Your task to perform on an android device: Open Yahoo.com Image 0: 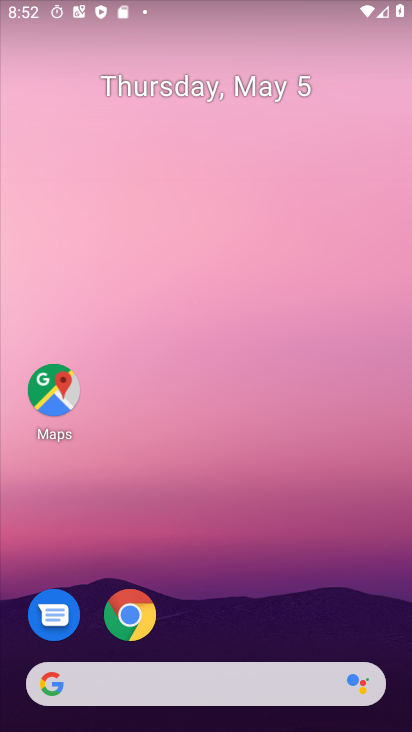
Step 0: click (135, 623)
Your task to perform on an android device: Open Yahoo.com Image 1: 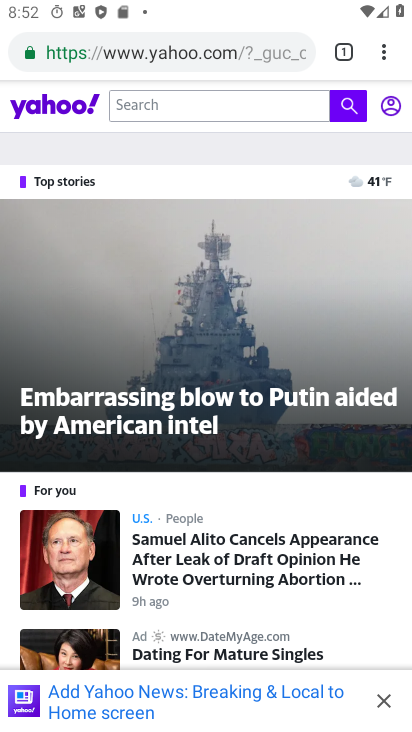
Step 1: click (225, 59)
Your task to perform on an android device: Open Yahoo.com Image 2: 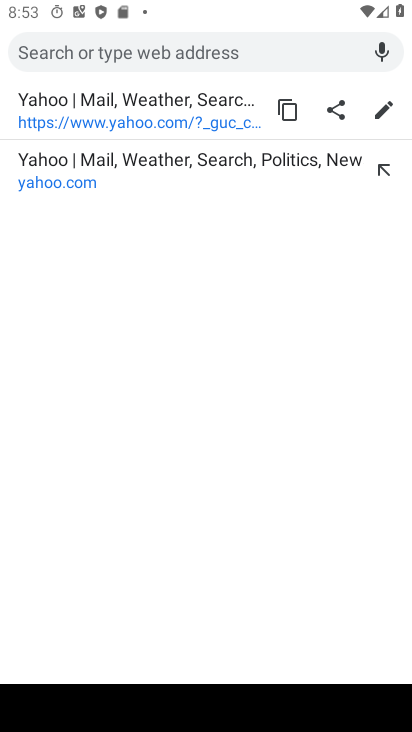
Step 2: type "yahoo.com"
Your task to perform on an android device: Open Yahoo.com Image 3: 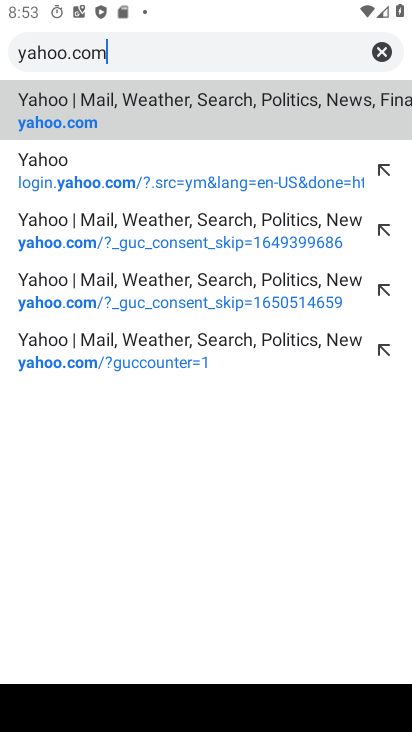
Step 3: click (102, 108)
Your task to perform on an android device: Open Yahoo.com Image 4: 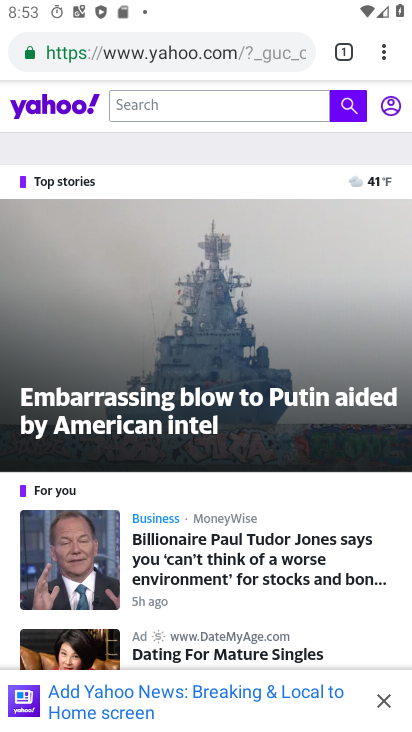
Step 4: task complete